Your task to perform on an android device: Search for pizza restaurants on Maps Image 0: 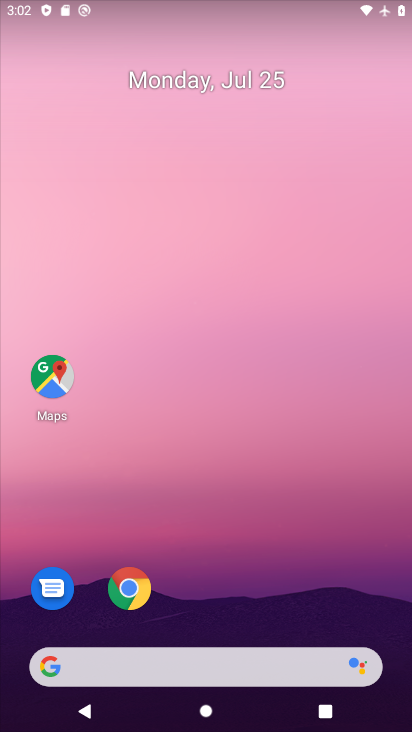
Step 0: drag from (235, 715) to (235, 216)
Your task to perform on an android device: Search for pizza restaurants on Maps Image 1: 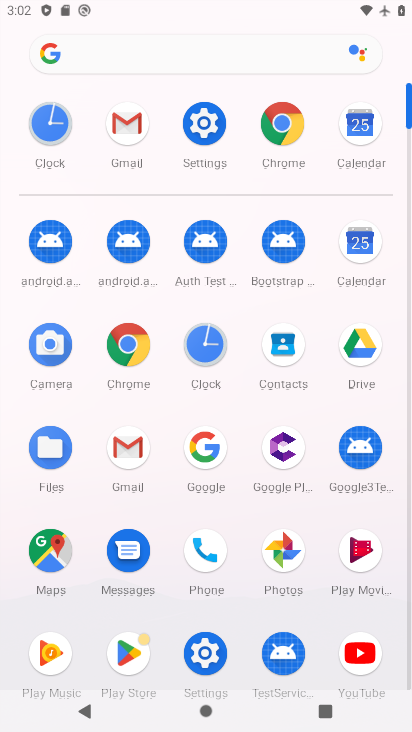
Step 1: click (42, 549)
Your task to perform on an android device: Search for pizza restaurants on Maps Image 2: 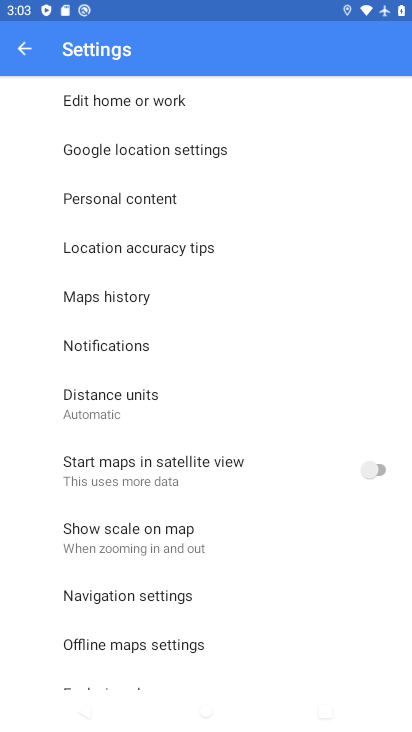
Step 2: click (25, 52)
Your task to perform on an android device: Search for pizza restaurants on Maps Image 3: 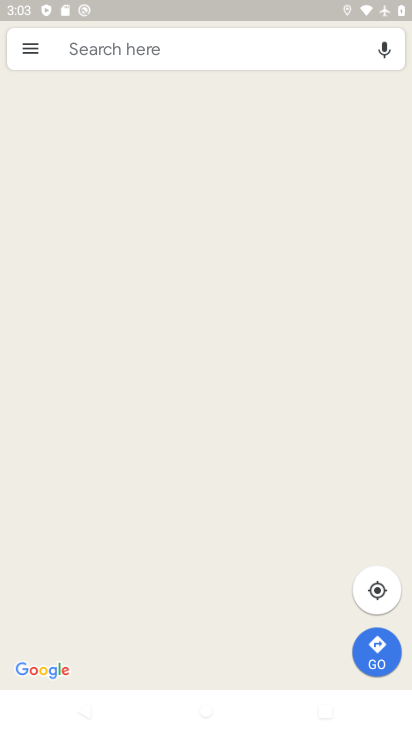
Step 3: click (253, 47)
Your task to perform on an android device: Search for pizza restaurants on Maps Image 4: 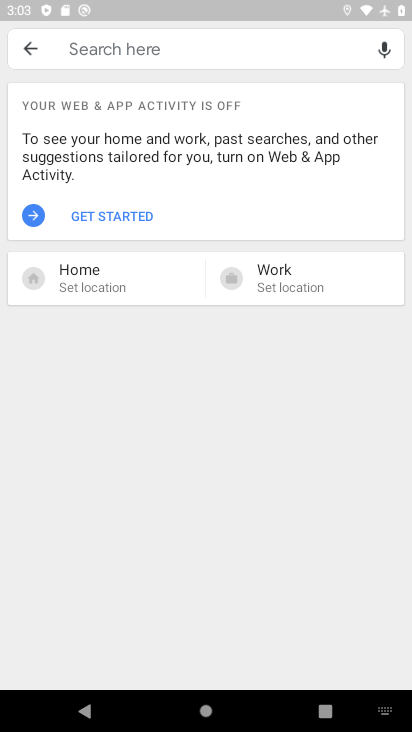
Step 4: type "Pizza restaurants"
Your task to perform on an android device: Search for pizza restaurants on Maps Image 5: 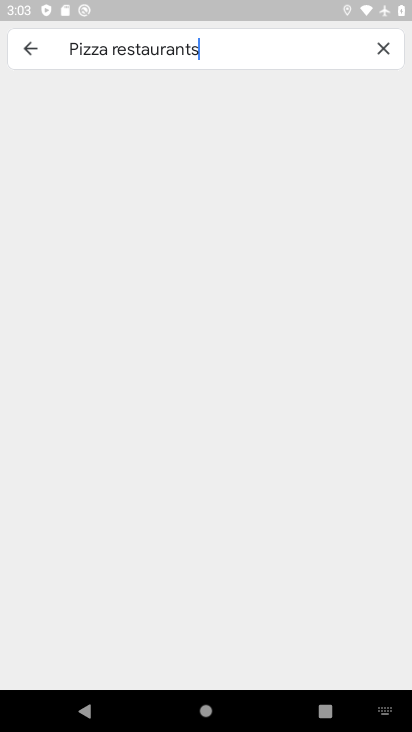
Step 5: task complete